Your task to perform on an android device: Open Google Chrome and open the bookmarks view Image 0: 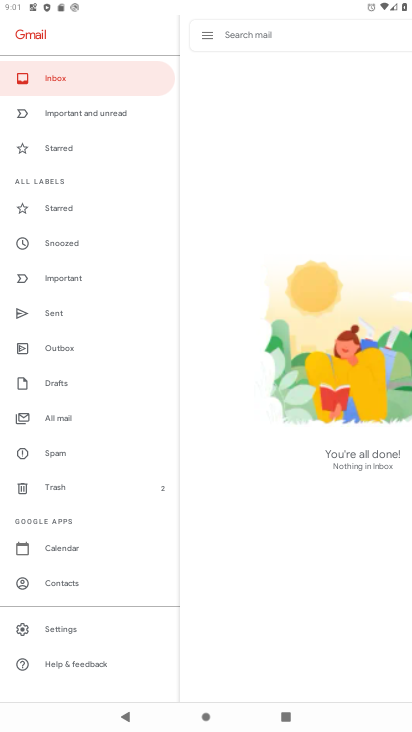
Step 0: press home button
Your task to perform on an android device: Open Google Chrome and open the bookmarks view Image 1: 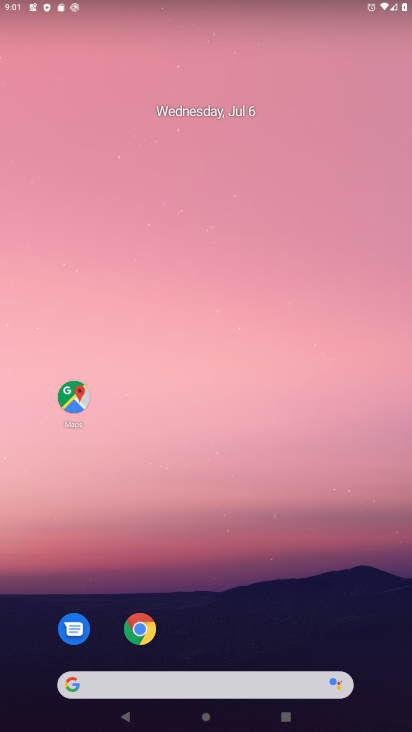
Step 1: click (136, 627)
Your task to perform on an android device: Open Google Chrome and open the bookmarks view Image 2: 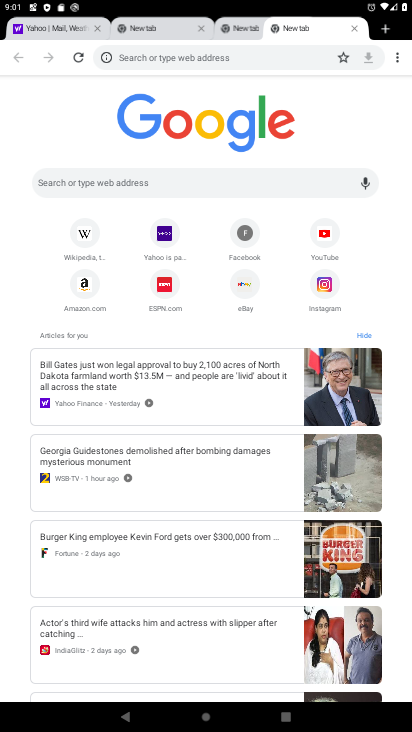
Step 2: click (399, 57)
Your task to perform on an android device: Open Google Chrome and open the bookmarks view Image 3: 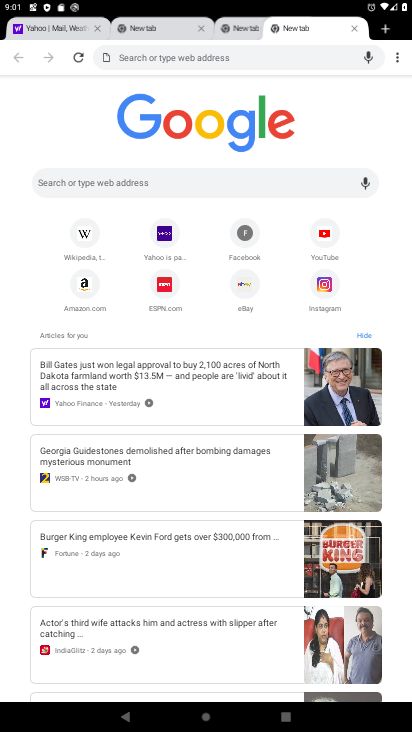
Step 3: click (398, 58)
Your task to perform on an android device: Open Google Chrome and open the bookmarks view Image 4: 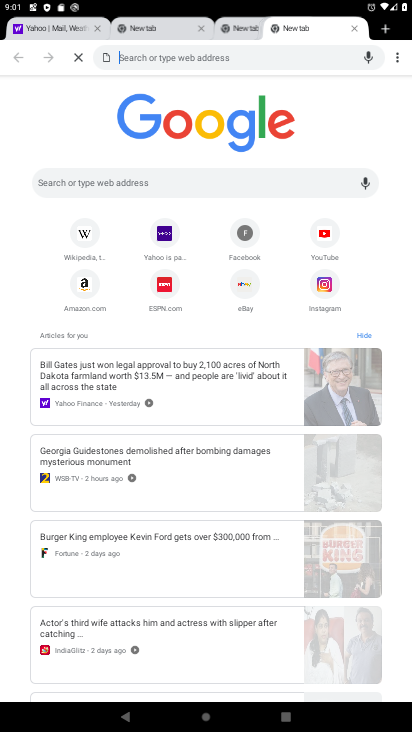
Step 4: click (399, 58)
Your task to perform on an android device: Open Google Chrome and open the bookmarks view Image 5: 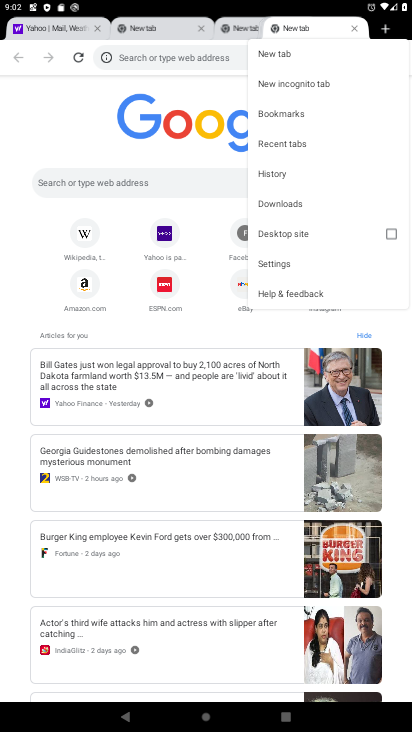
Step 5: click (290, 99)
Your task to perform on an android device: Open Google Chrome and open the bookmarks view Image 6: 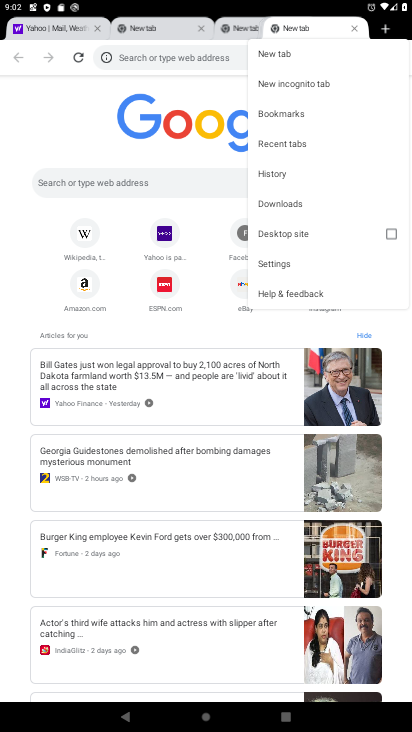
Step 6: click (289, 114)
Your task to perform on an android device: Open Google Chrome and open the bookmarks view Image 7: 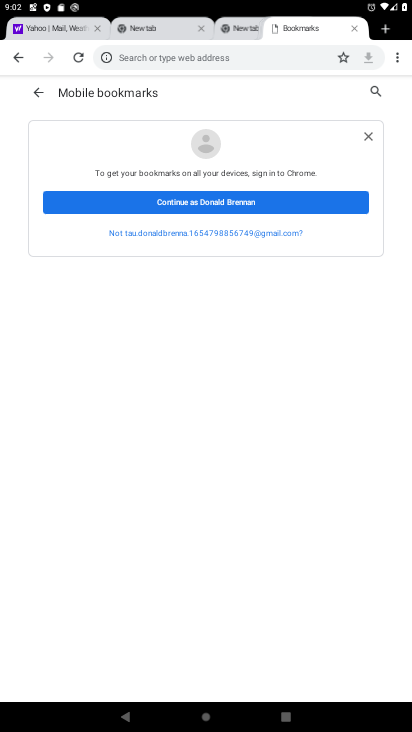
Step 7: click (370, 139)
Your task to perform on an android device: Open Google Chrome and open the bookmarks view Image 8: 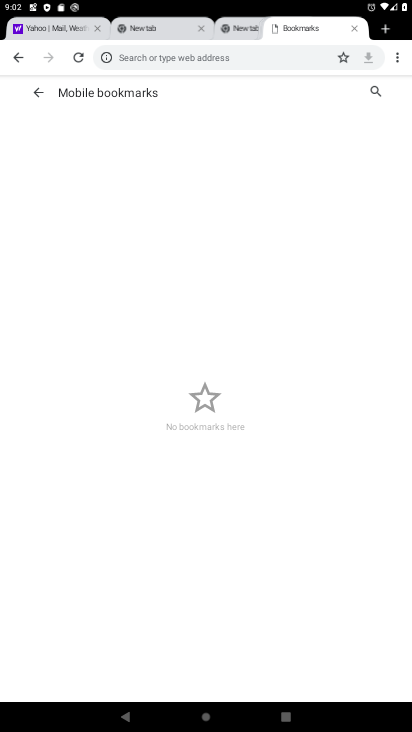
Step 8: task complete